Your task to perform on an android device: turn off sleep mode Image 0: 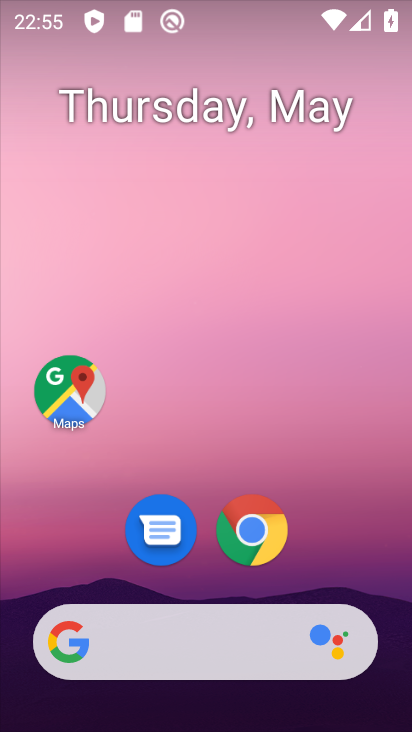
Step 0: drag from (320, 553) to (277, 99)
Your task to perform on an android device: turn off sleep mode Image 1: 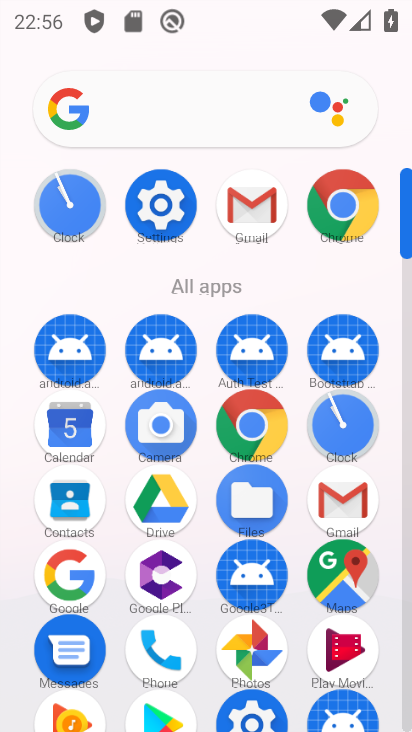
Step 1: click (162, 205)
Your task to perform on an android device: turn off sleep mode Image 2: 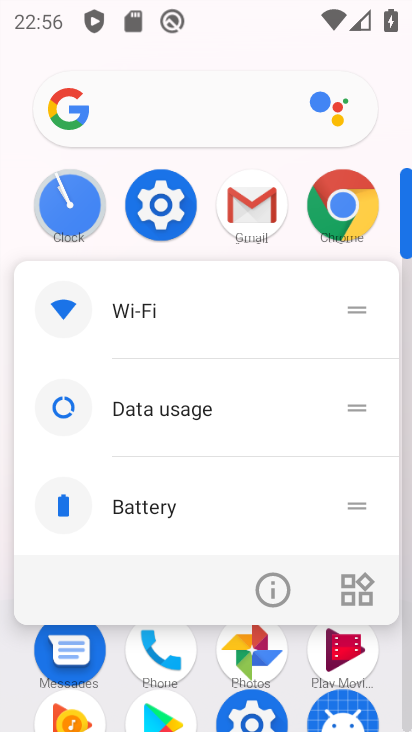
Step 2: click (161, 206)
Your task to perform on an android device: turn off sleep mode Image 3: 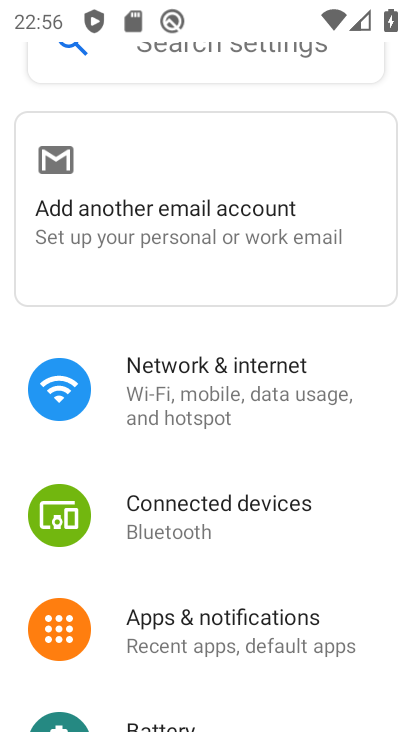
Step 3: drag from (169, 459) to (246, 368)
Your task to perform on an android device: turn off sleep mode Image 4: 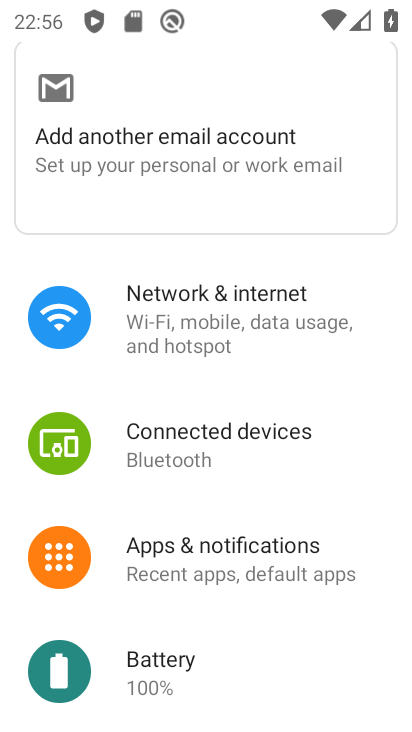
Step 4: drag from (184, 526) to (232, 425)
Your task to perform on an android device: turn off sleep mode Image 5: 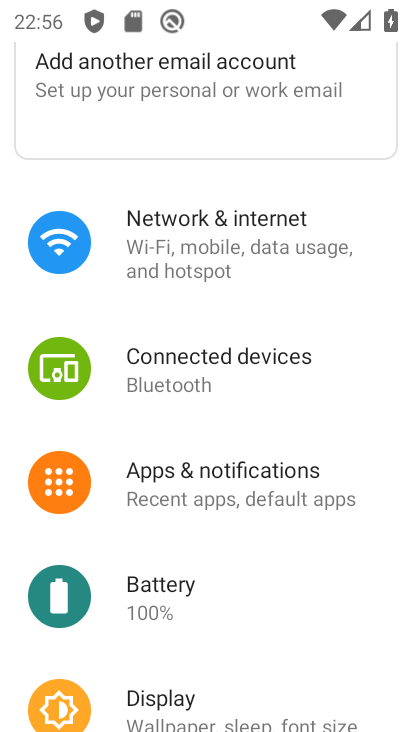
Step 5: drag from (198, 550) to (246, 453)
Your task to perform on an android device: turn off sleep mode Image 6: 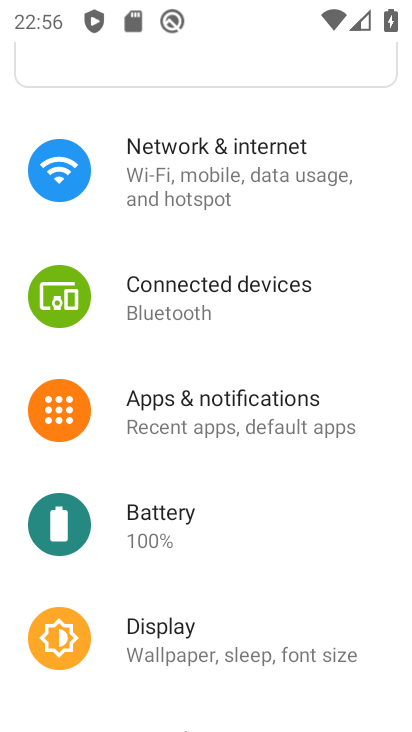
Step 6: drag from (169, 595) to (250, 491)
Your task to perform on an android device: turn off sleep mode Image 7: 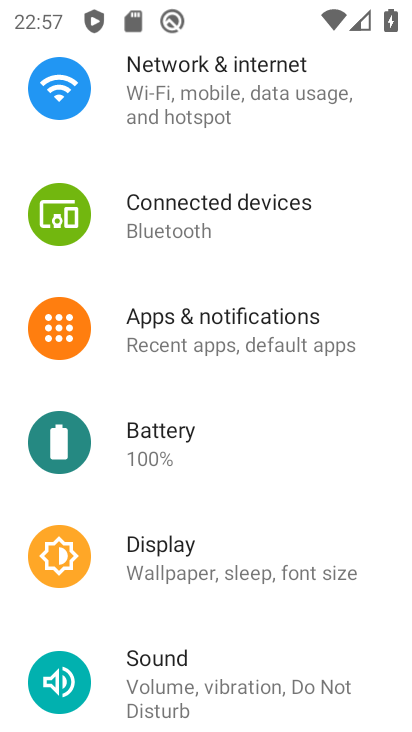
Step 7: click (219, 572)
Your task to perform on an android device: turn off sleep mode Image 8: 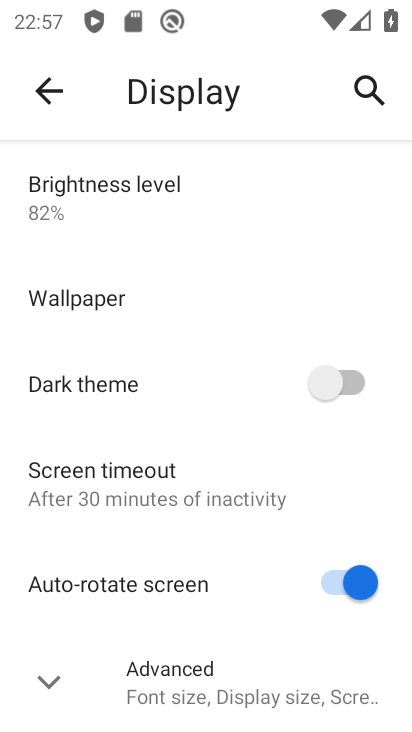
Step 8: drag from (192, 444) to (211, 337)
Your task to perform on an android device: turn off sleep mode Image 9: 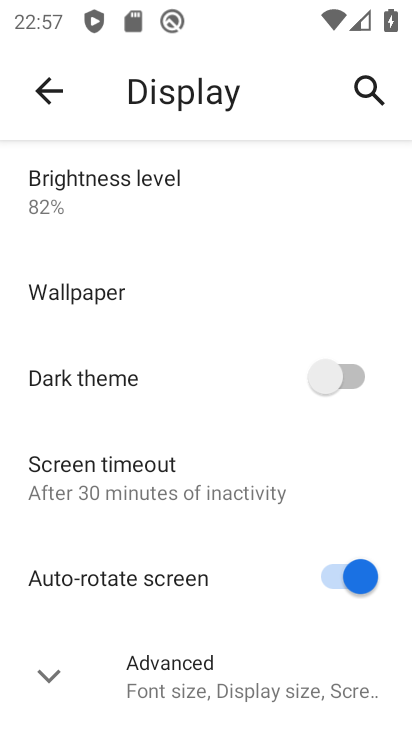
Step 9: click (146, 677)
Your task to perform on an android device: turn off sleep mode Image 10: 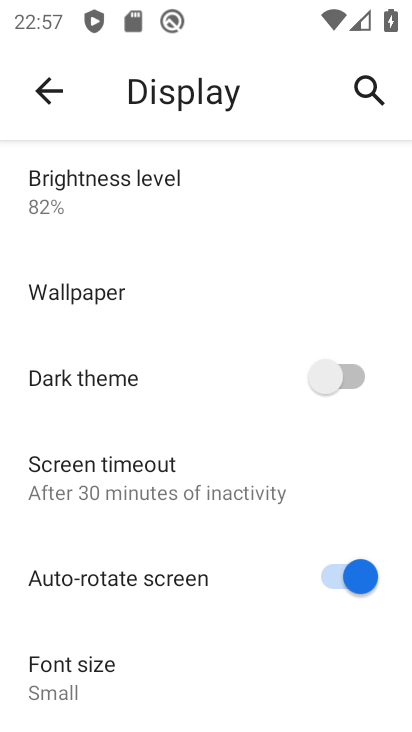
Step 10: task complete